Your task to perform on an android device: open chrome privacy settings Image 0: 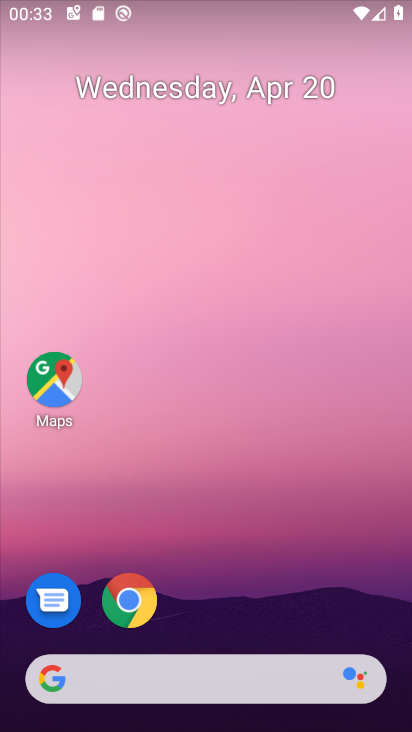
Step 0: drag from (340, 602) to (245, 204)
Your task to perform on an android device: open chrome privacy settings Image 1: 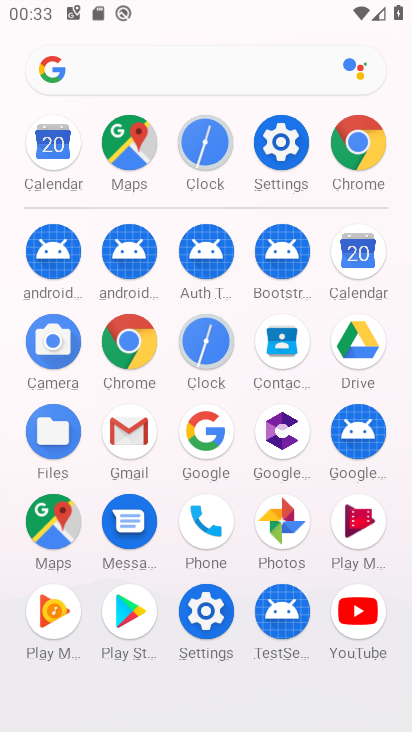
Step 1: click (128, 357)
Your task to perform on an android device: open chrome privacy settings Image 2: 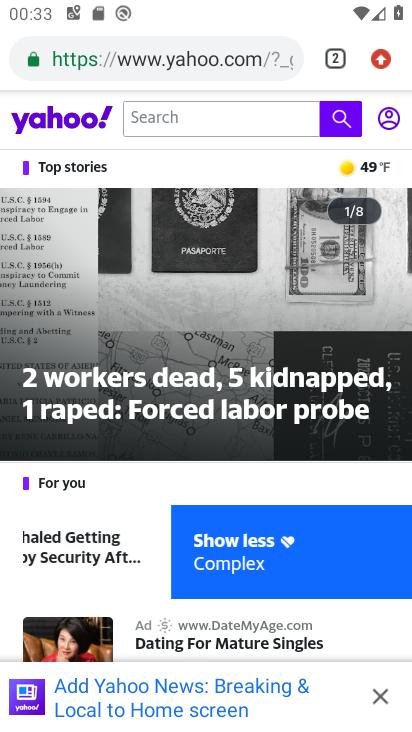
Step 2: click (387, 69)
Your task to perform on an android device: open chrome privacy settings Image 3: 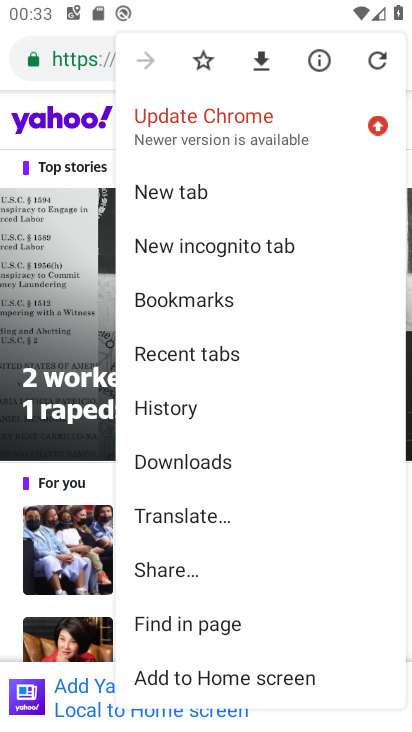
Step 3: drag from (266, 622) to (286, 284)
Your task to perform on an android device: open chrome privacy settings Image 4: 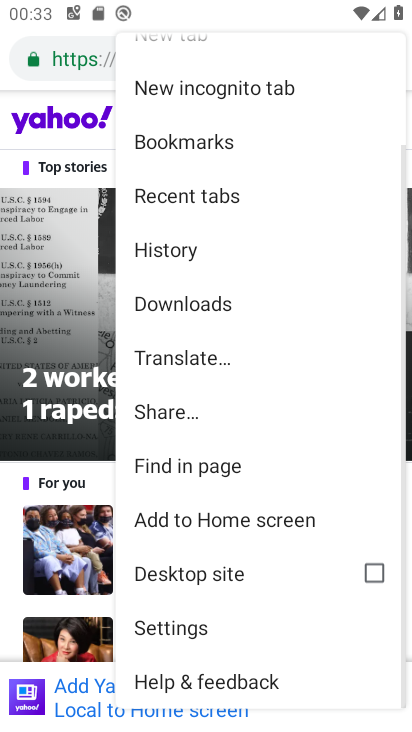
Step 4: click (166, 627)
Your task to perform on an android device: open chrome privacy settings Image 5: 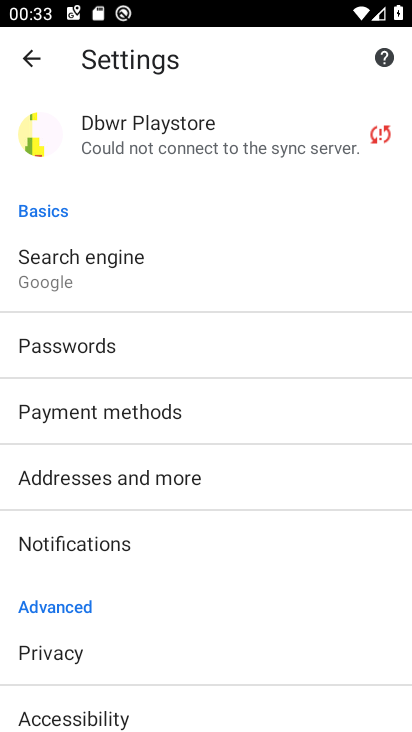
Step 5: click (123, 653)
Your task to perform on an android device: open chrome privacy settings Image 6: 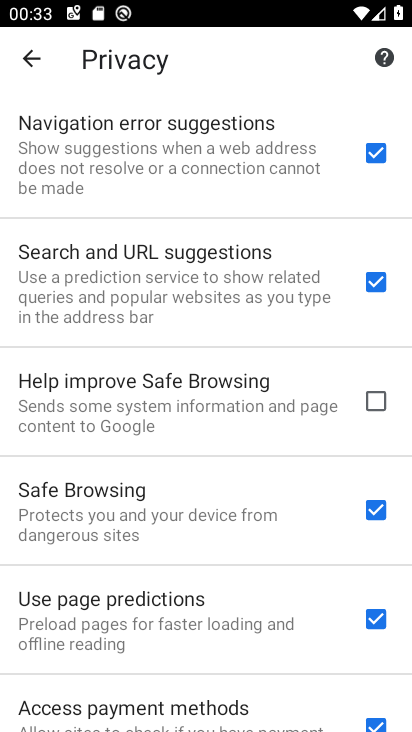
Step 6: task complete